Your task to perform on an android device: Search for razer blade on target.com, select the first entry, add it to the cart, then select checkout. Image 0: 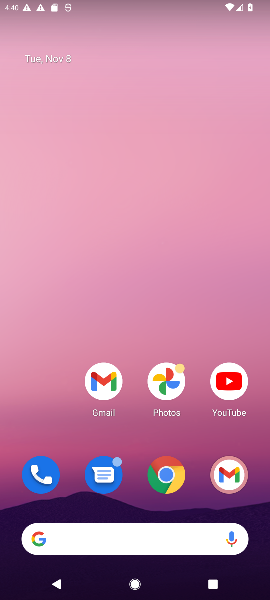
Step 0: drag from (169, 491) to (175, 103)
Your task to perform on an android device: Search for razer blade on target.com, select the first entry, add it to the cart, then select checkout. Image 1: 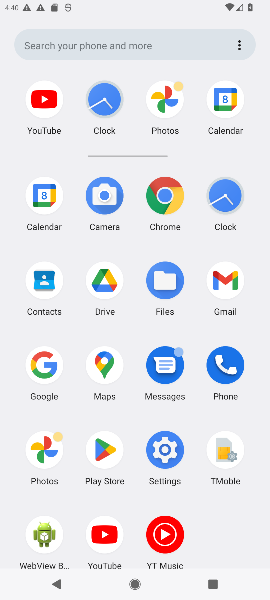
Step 1: click (34, 365)
Your task to perform on an android device: Search for razer blade on target.com, select the first entry, add it to the cart, then select checkout. Image 2: 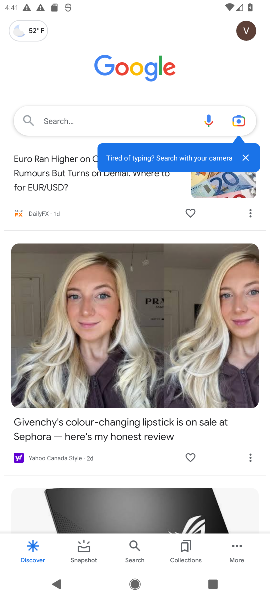
Step 2: click (101, 113)
Your task to perform on an android device: Search for razer blade on target.com, select the first entry, add it to the cart, then select checkout. Image 3: 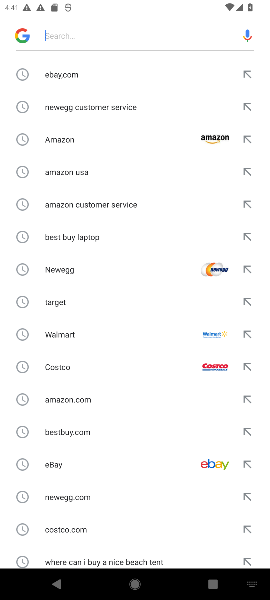
Step 3: type "target "
Your task to perform on an android device: Search for razer blade on target.com, select the first entry, add it to the cart, then select checkout. Image 4: 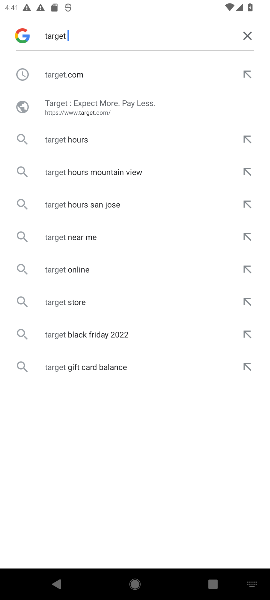
Step 4: click (82, 75)
Your task to perform on an android device: Search for razer blade on target.com, select the first entry, add it to the cart, then select checkout. Image 5: 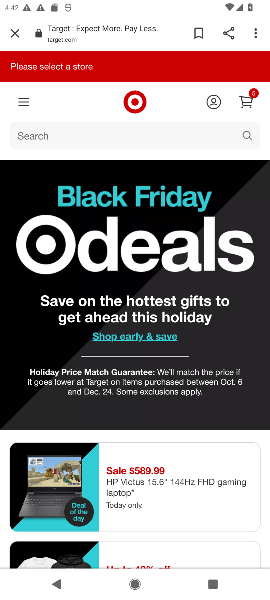
Step 5: click (127, 130)
Your task to perform on an android device: Search for razer blade on target.com, select the first entry, add it to the cart, then select checkout. Image 6: 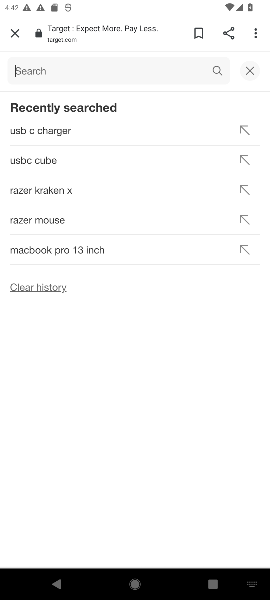
Step 6: type " razer blade "
Your task to perform on an android device: Search for razer blade on target.com, select the first entry, add it to the cart, then select checkout. Image 7: 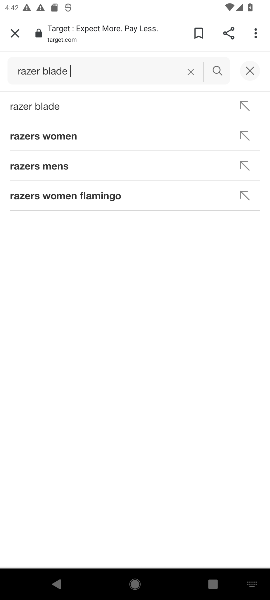
Step 7: click (38, 106)
Your task to perform on an android device: Search for razer blade on target.com, select the first entry, add it to the cart, then select checkout. Image 8: 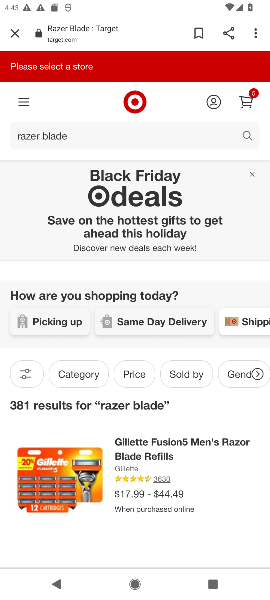
Step 8: click (241, 133)
Your task to perform on an android device: Search for razer blade on target.com, select the first entry, add it to the cart, then select checkout. Image 9: 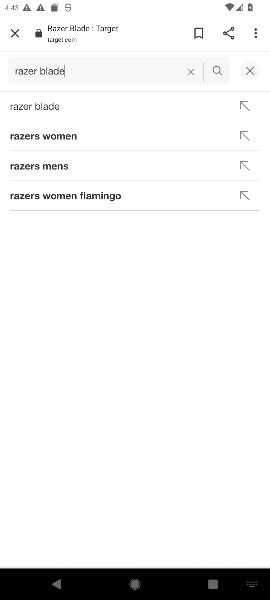
Step 9: click (45, 112)
Your task to perform on an android device: Search for razer blade on target.com, select the first entry, add it to the cart, then select checkout. Image 10: 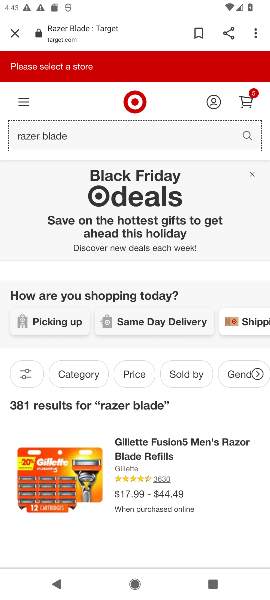
Step 10: drag from (152, 543) to (143, 279)
Your task to perform on an android device: Search for razer blade on target.com, select the first entry, add it to the cart, then select checkout. Image 11: 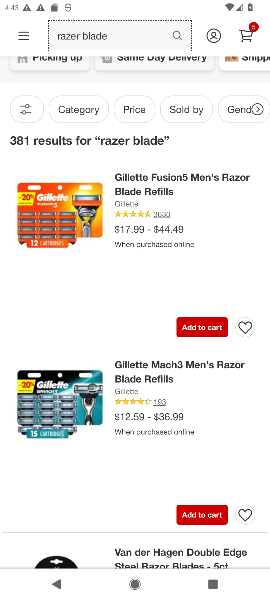
Step 11: click (184, 316)
Your task to perform on an android device: Search for razer blade on target.com, select the first entry, add it to the cart, then select checkout. Image 12: 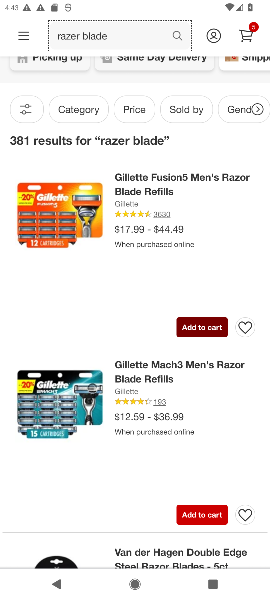
Step 12: click (185, 321)
Your task to perform on an android device: Search for razer blade on target.com, select the first entry, add it to the cart, then select checkout. Image 13: 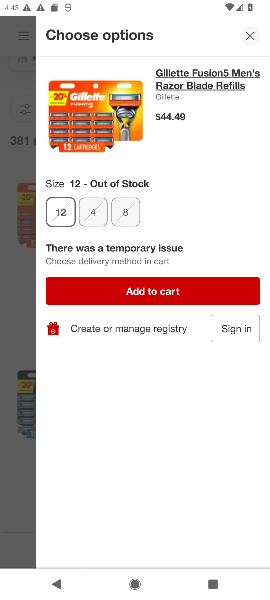
Step 13: click (188, 292)
Your task to perform on an android device: Search for razer blade on target.com, select the first entry, add it to the cart, then select checkout. Image 14: 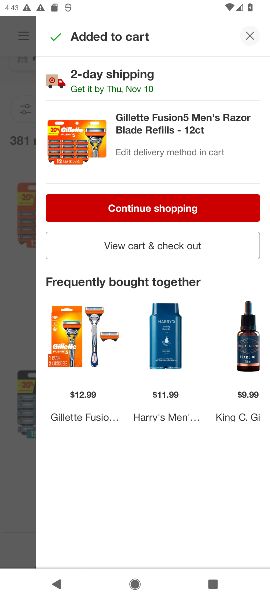
Step 14: task complete